Your task to perform on an android device: turn on showing notifications on the lock screen Image 0: 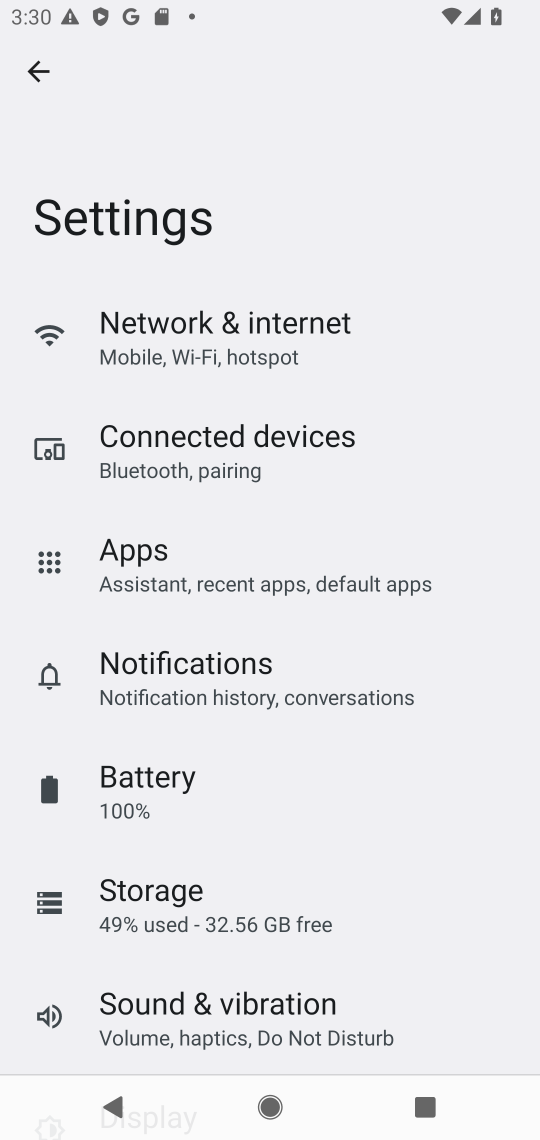
Step 0: press home button
Your task to perform on an android device: turn on showing notifications on the lock screen Image 1: 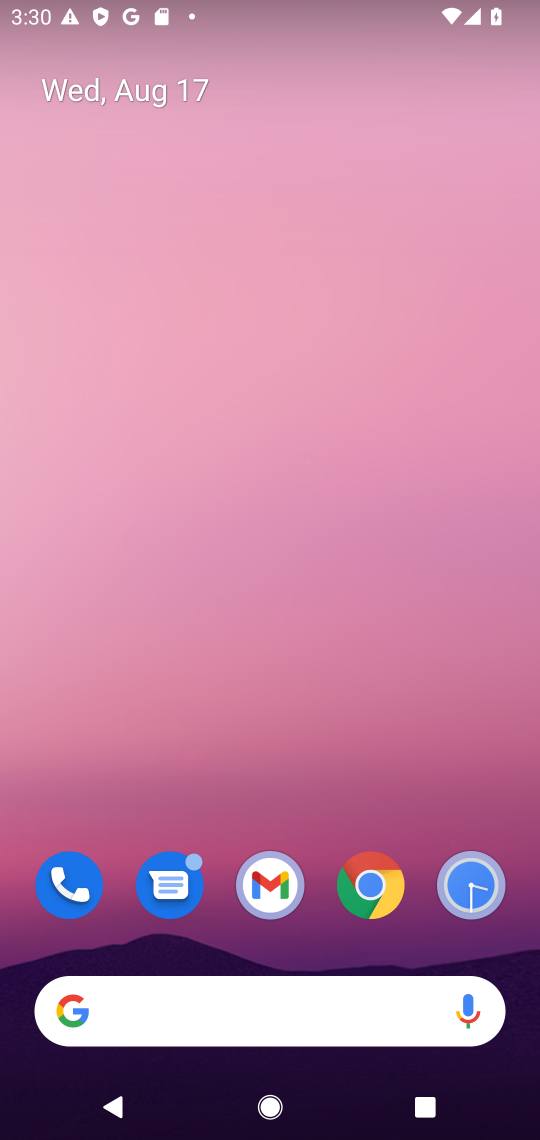
Step 1: drag from (219, 1022) to (266, 178)
Your task to perform on an android device: turn on showing notifications on the lock screen Image 2: 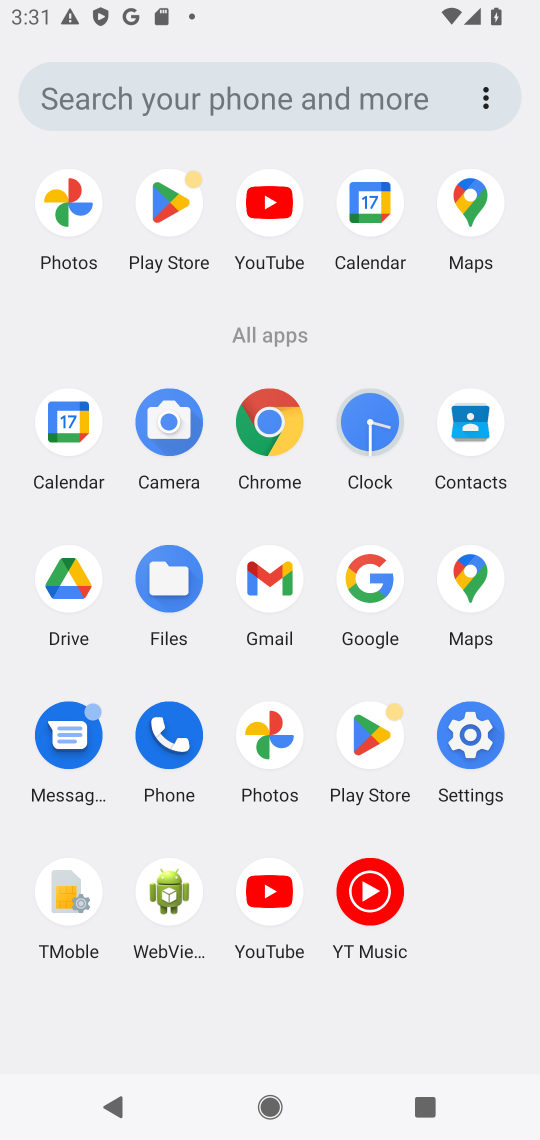
Step 2: click (471, 734)
Your task to perform on an android device: turn on showing notifications on the lock screen Image 3: 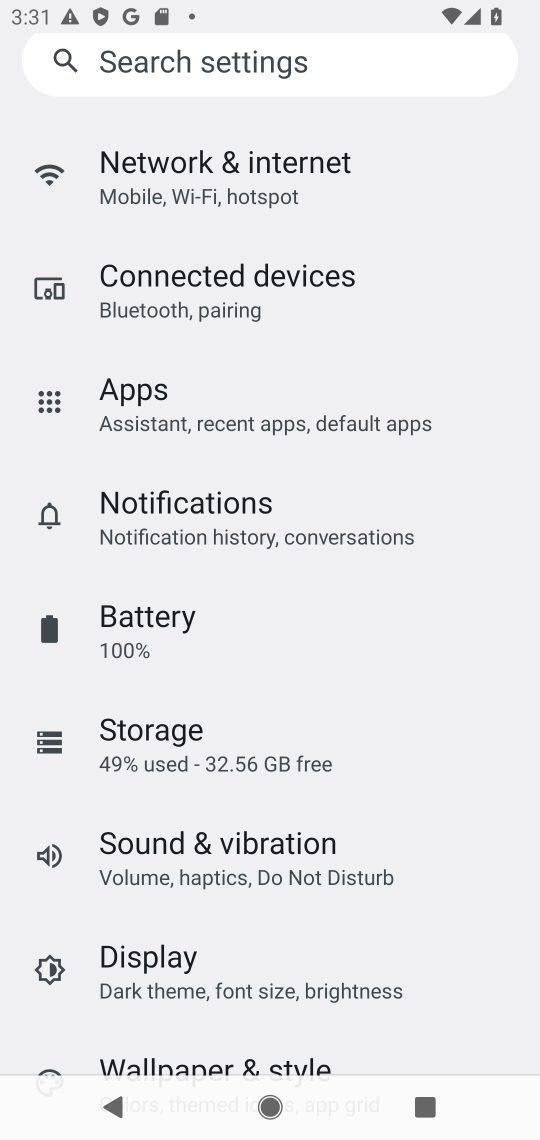
Step 3: click (181, 518)
Your task to perform on an android device: turn on showing notifications on the lock screen Image 4: 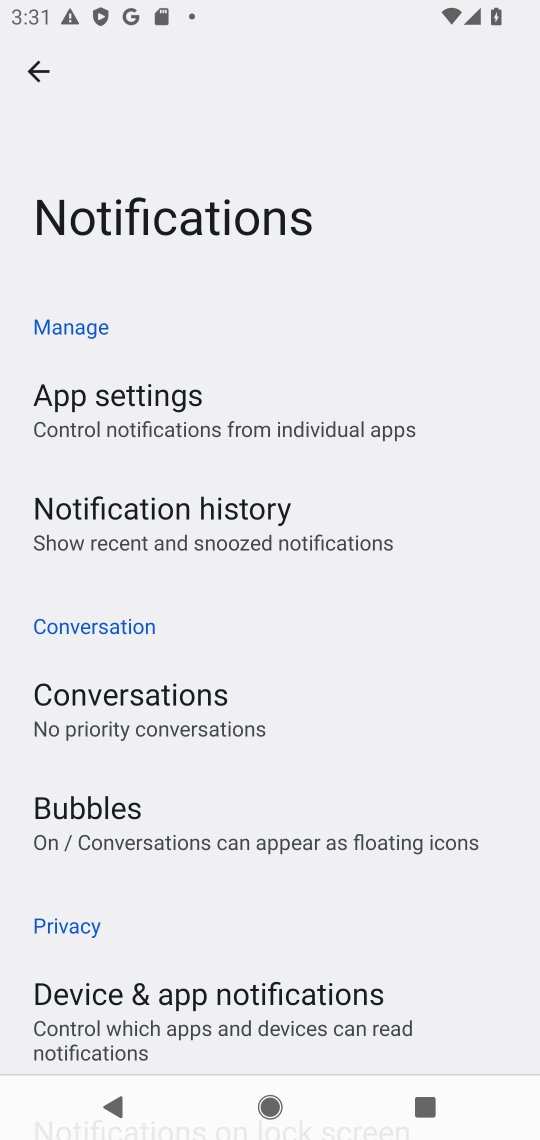
Step 4: drag from (128, 911) to (249, 737)
Your task to perform on an android device: turn on showing notifications on the lock screen Image 5: 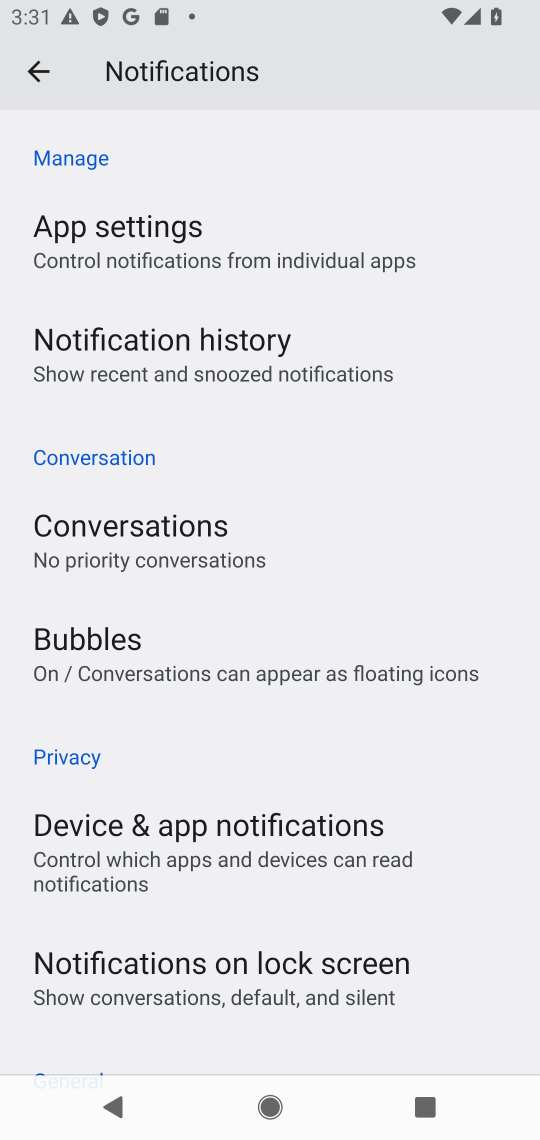
Step 5: drag from (205, 942) to (359, 758)
Your task to perform on an android device: turn on showing notifications on the lock screen Image 6: 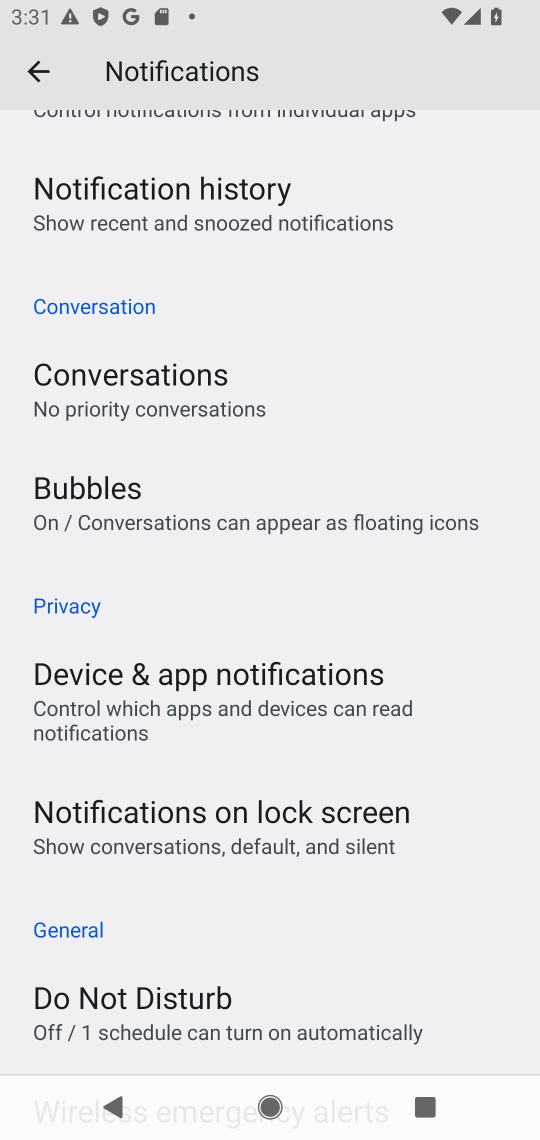
Step 6: click (282, 827)
Your task to perform on an android device: turn on showing notifications on the lock screen Image 7: 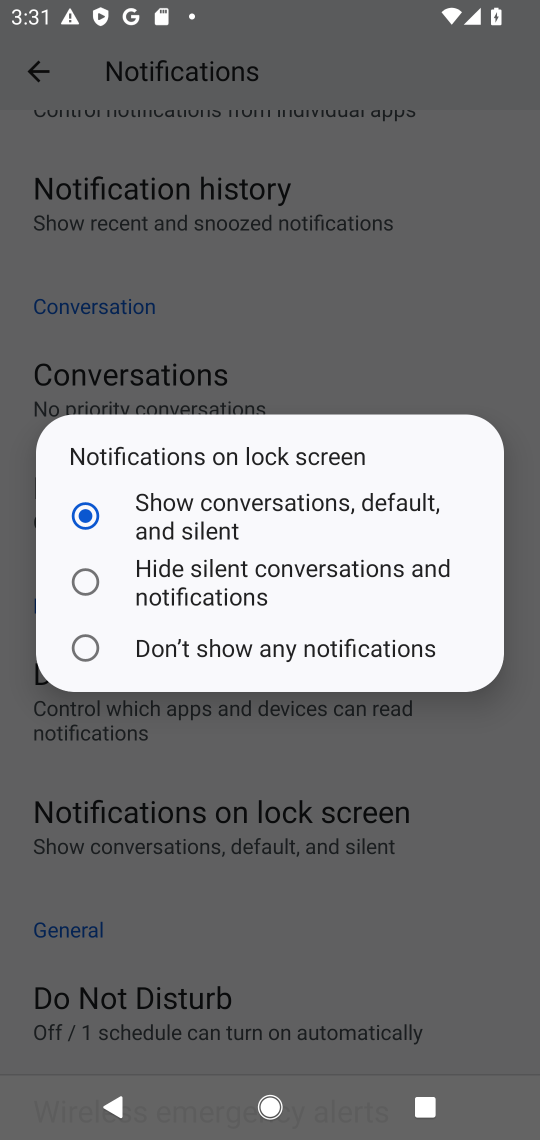
Step 7: click (82, 520)
Your task to perform on an android device: turn on showing notifications on the lock screen Image 8: 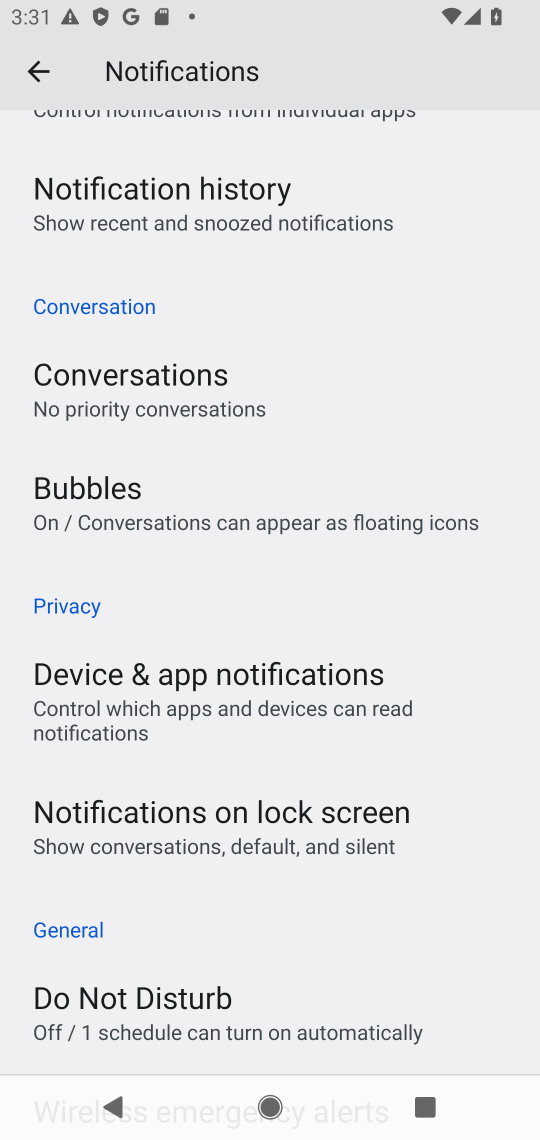
Step 8: task complete